Your task to perform on an android device: toggle location history Image 0: 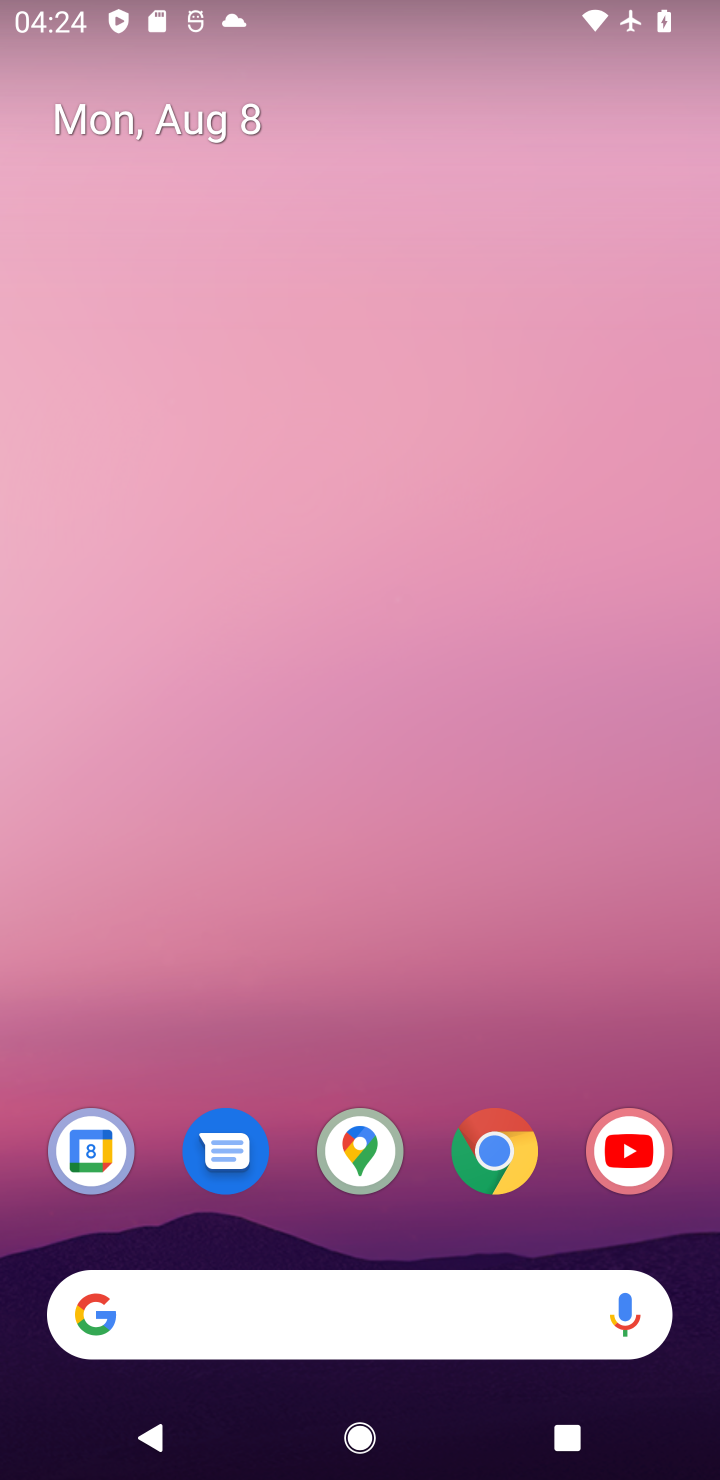
Step 0: drag from (297, 1044) to (291, 319)
Your task to perform on an android device: toggle location history Image 1: 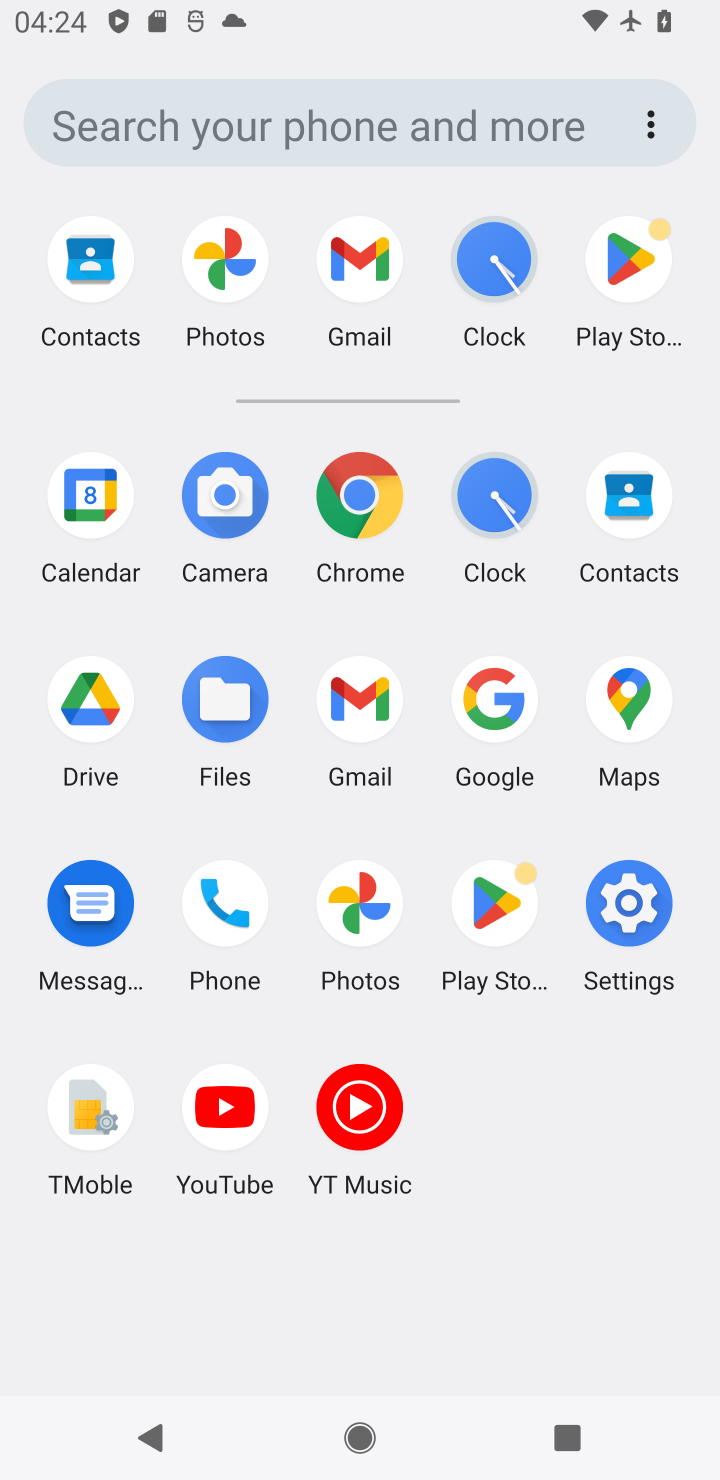
Step 1: click (629, 944)
Your task to perform on an android device: toggle location history Image 2: 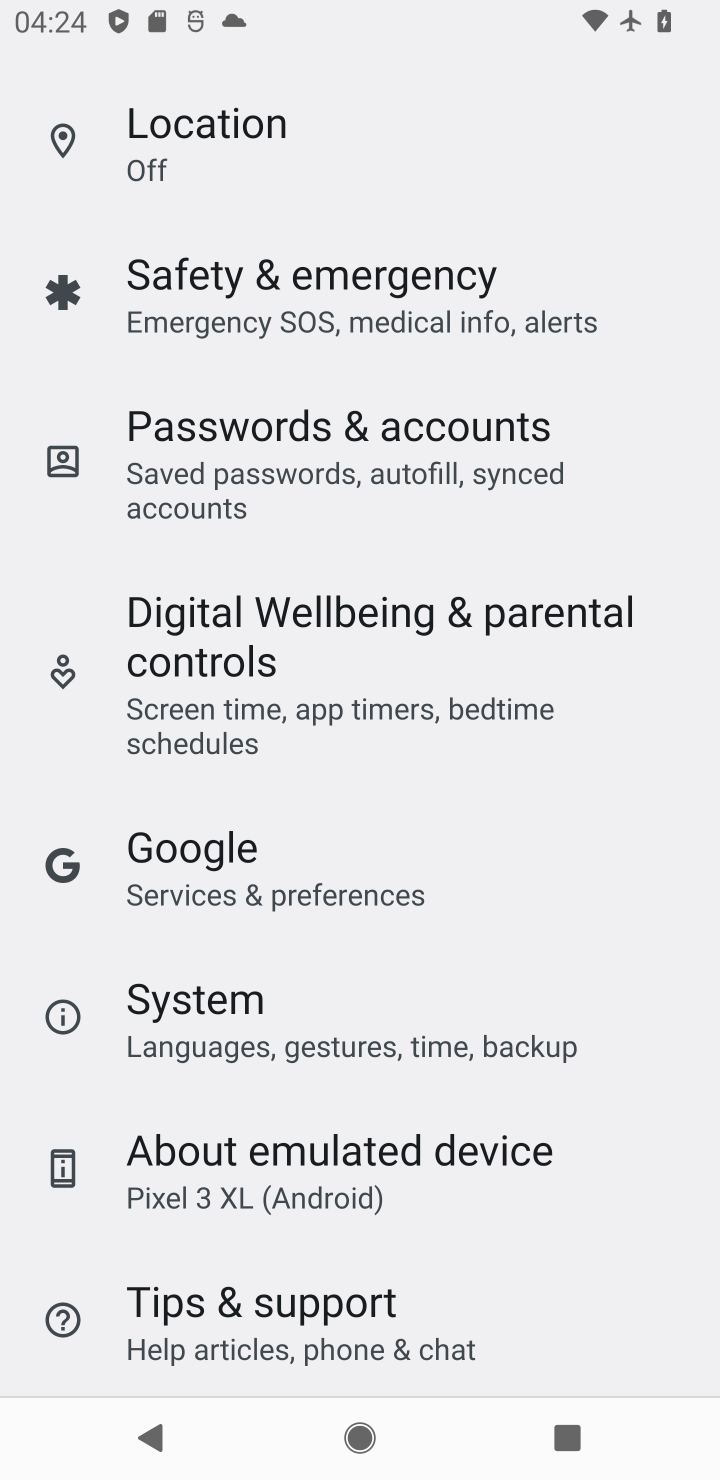
Step 2: drag from (262, 1111) to (135, 321)
Your task to perform on an android device: toggle location history Image 3: 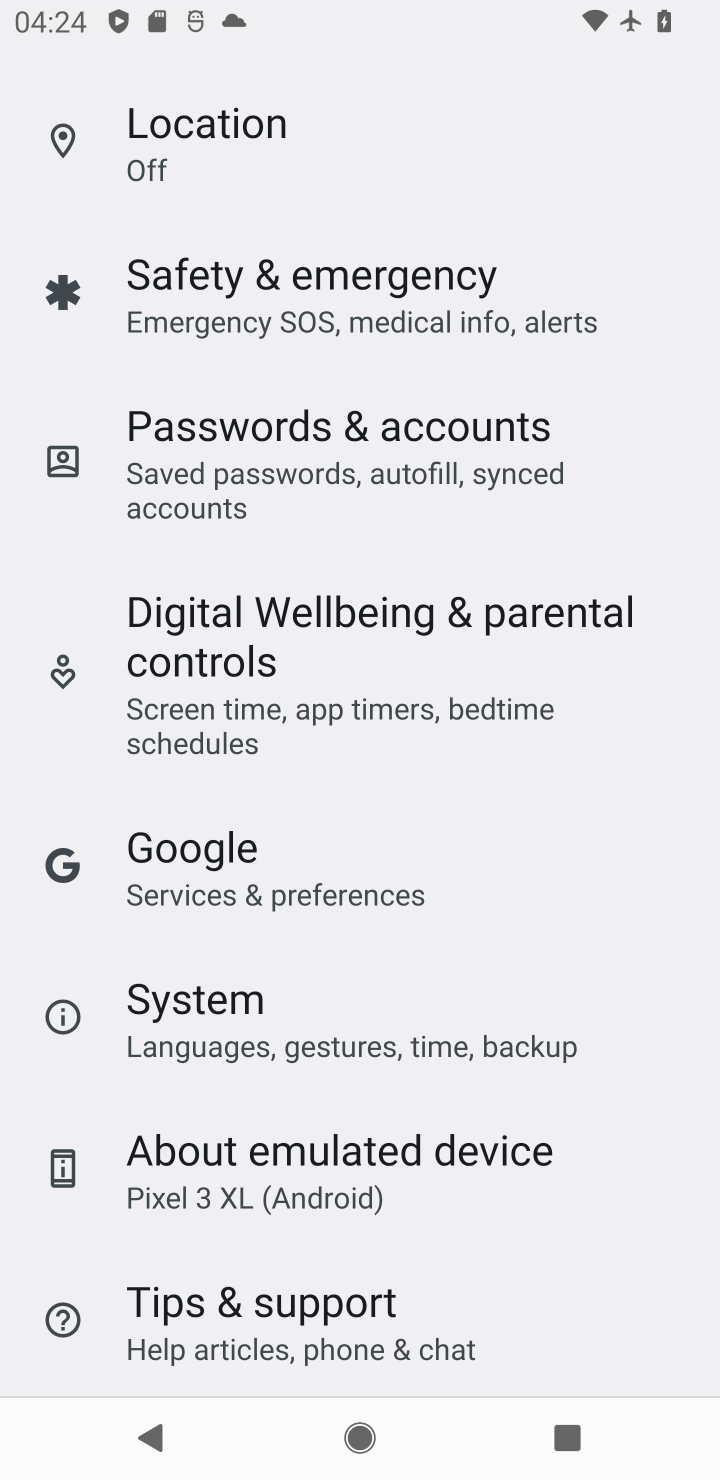
Step 3: click (215, 169)
Your task to perform on an android device: toggle location history Image 4: 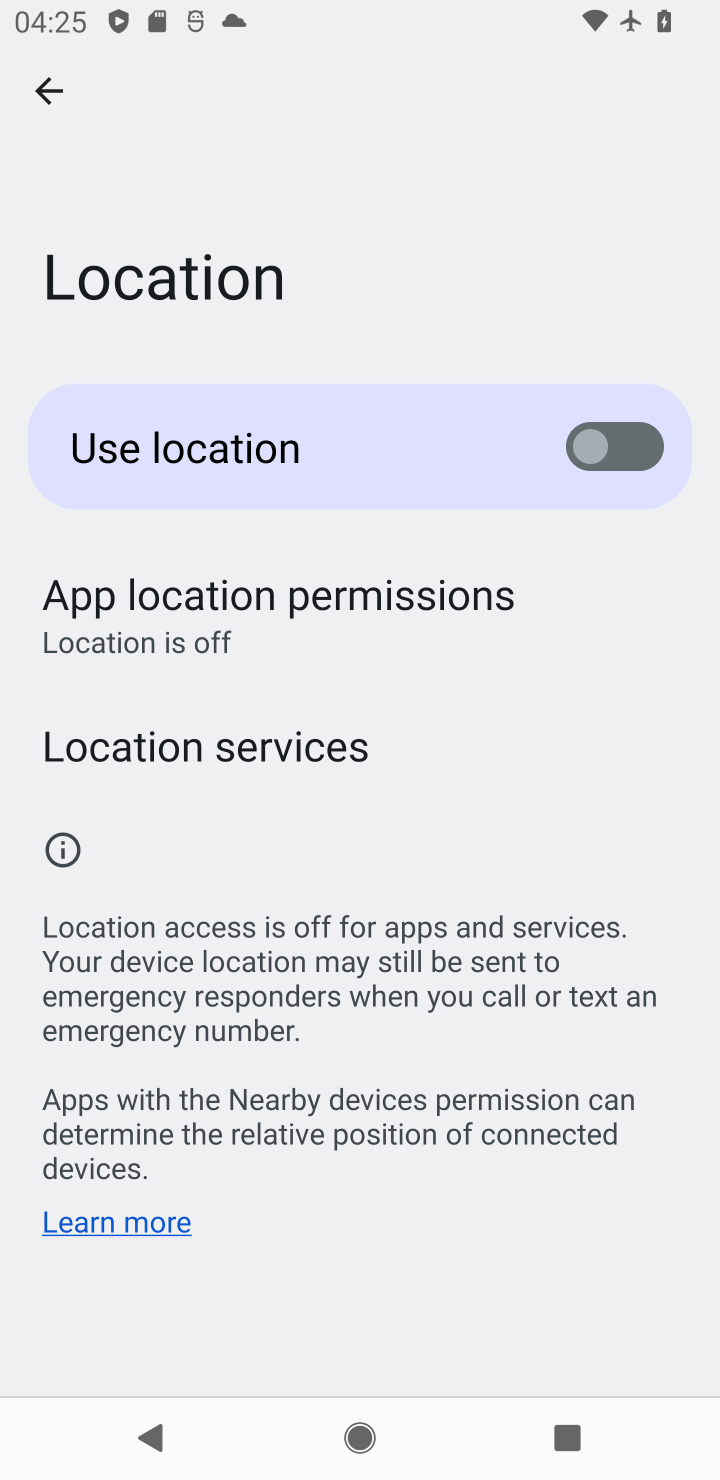
Step 4: click (319, 739)
Your task to perform on an android device: toggle location history Image 5: 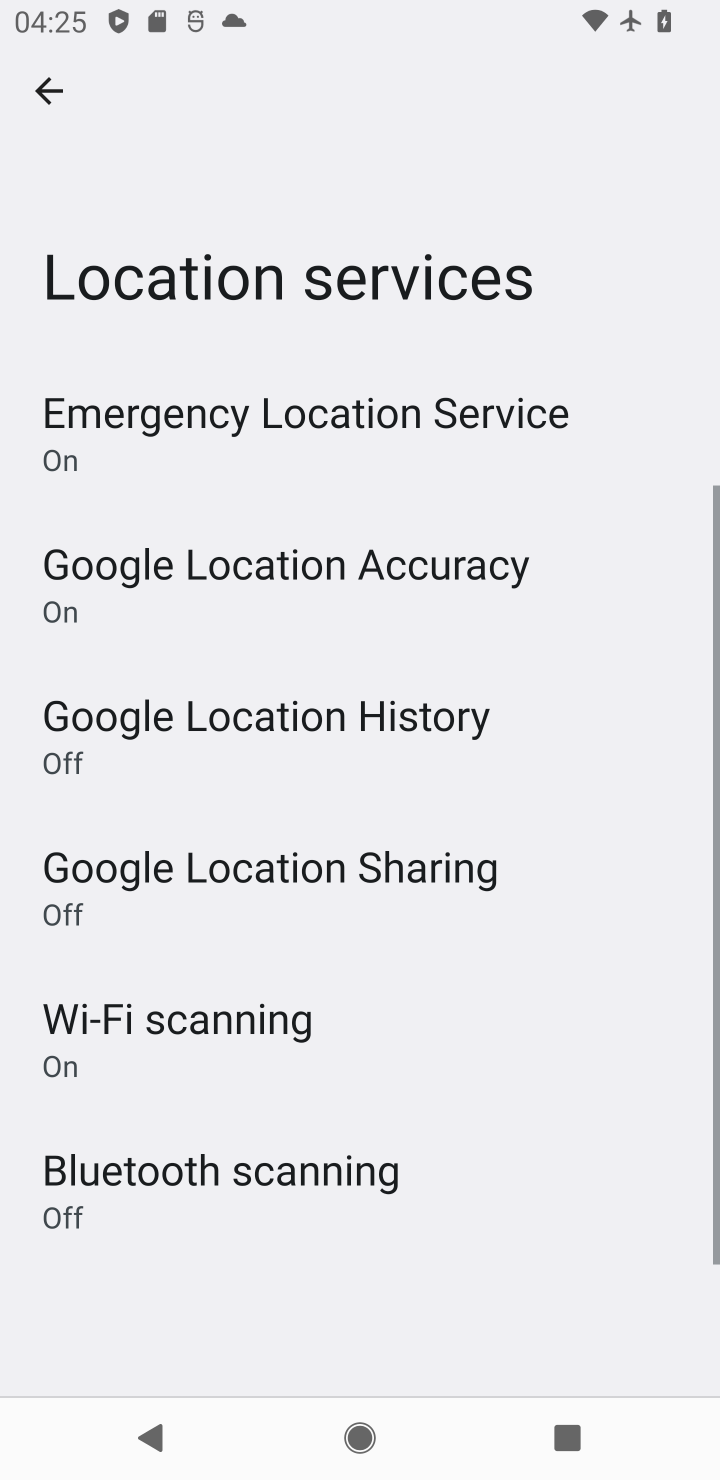
Step 5: click (241, 733)
Your task to perform on an android device: toggle location history Image 6: 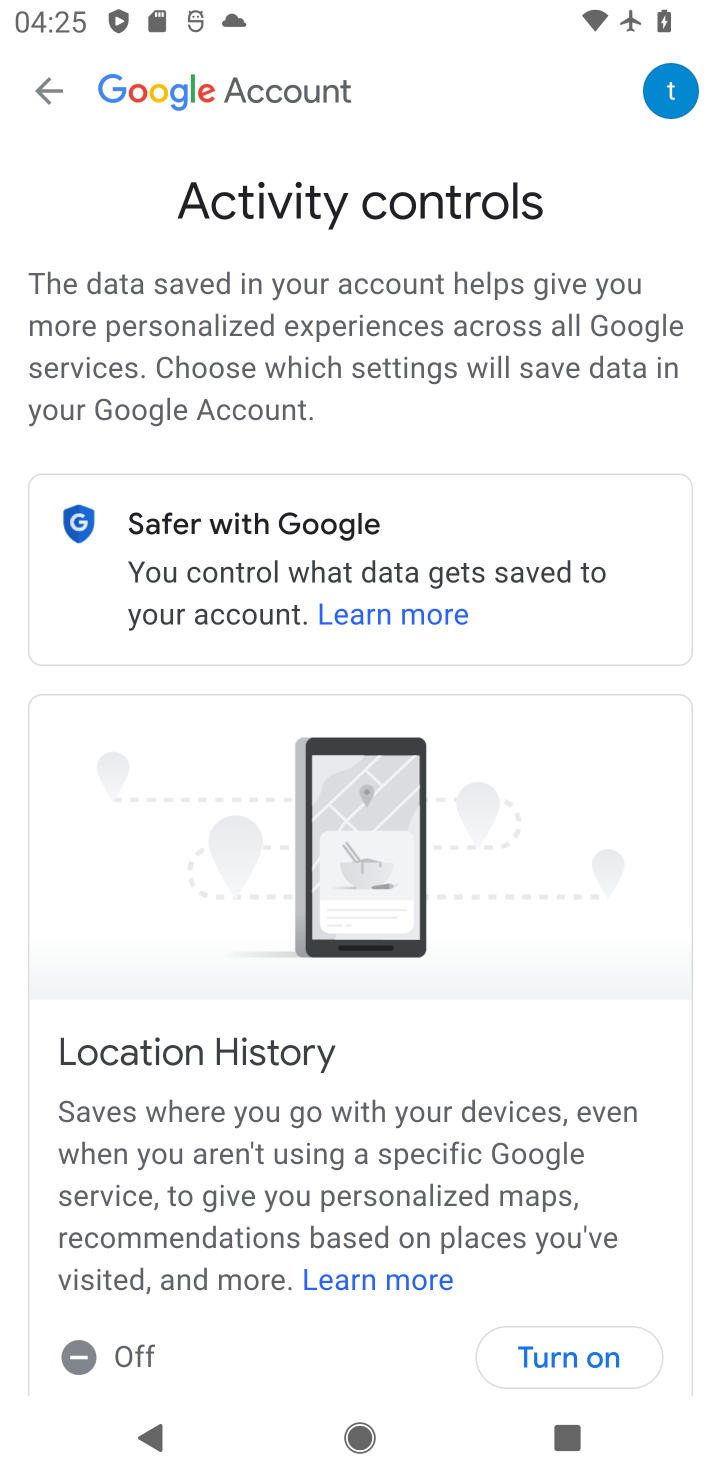
Step 6: drag from (419, 1108) to (349, 506)
Your task to perform on an android device: toggle location history Image 7: 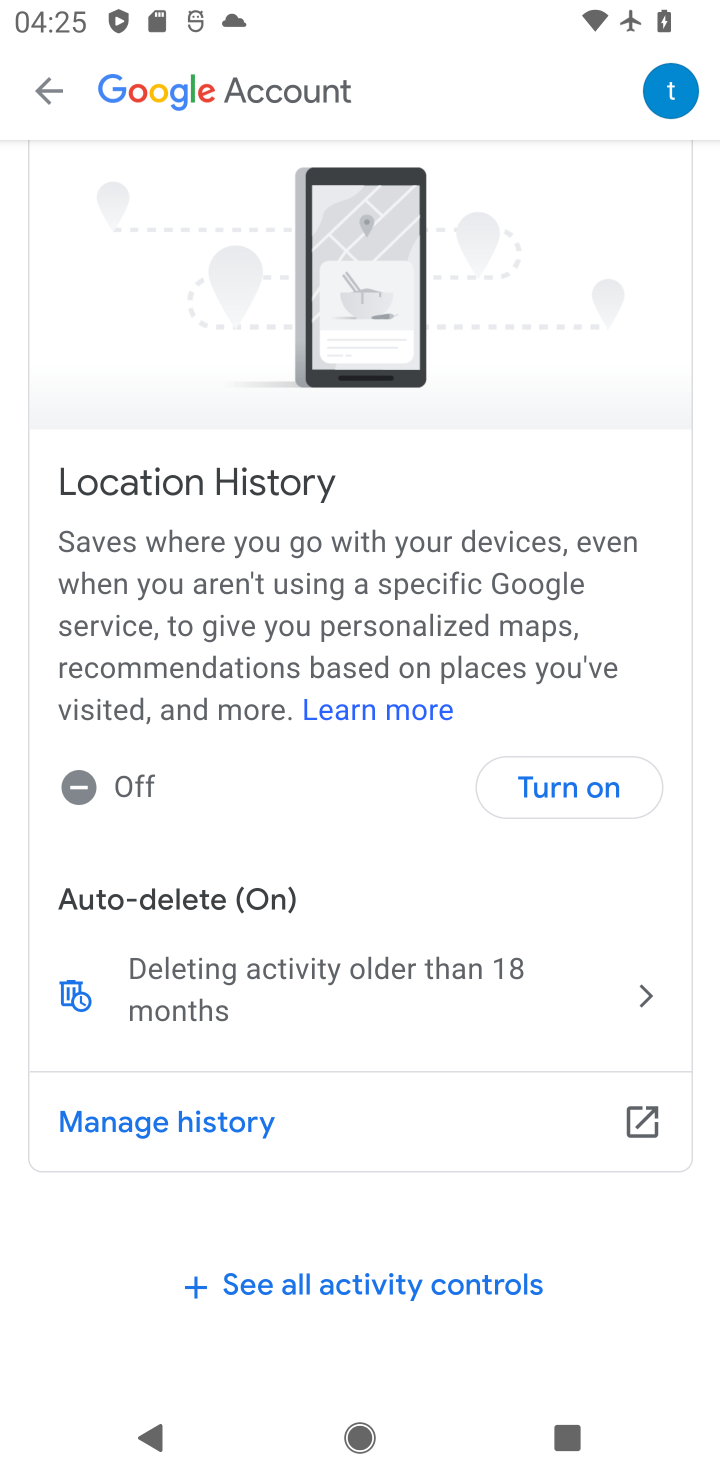
Step 7: click (544, 1046)
Your task to perform on an android device: toggle location history Image 8: 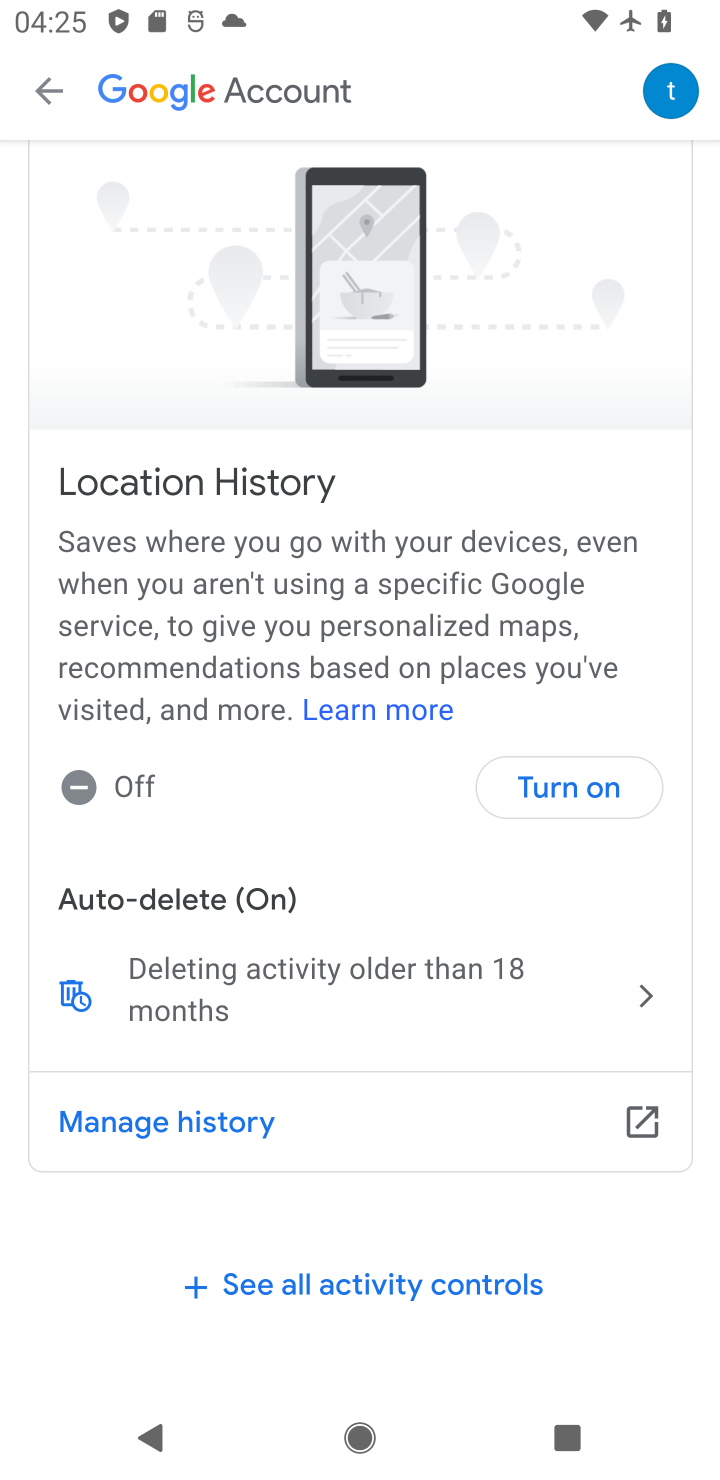
Step 8: click (532, 756)
Your task to perform on an android device: toggle location history Image 9: 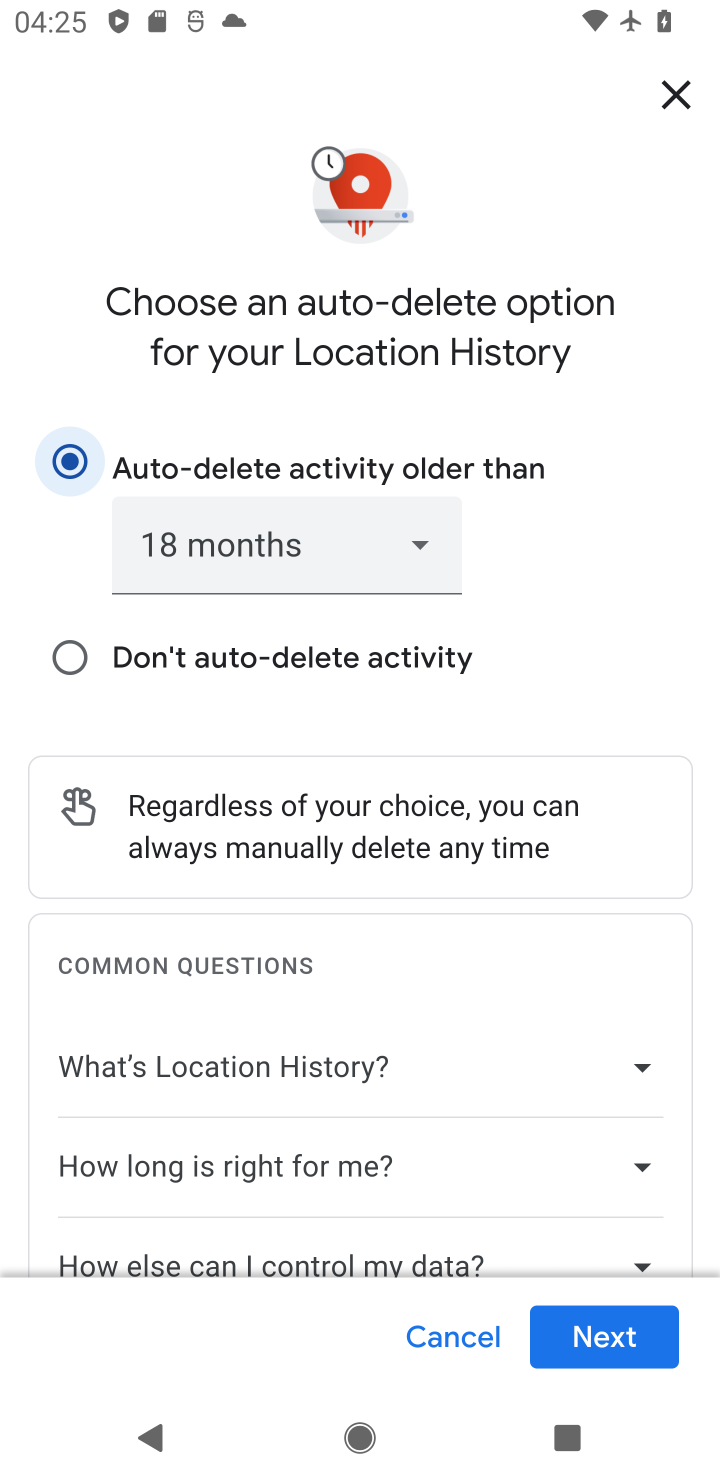
Step 9: click (467, 1314)
Your task to perform on an android device: toggle location history Image 10: 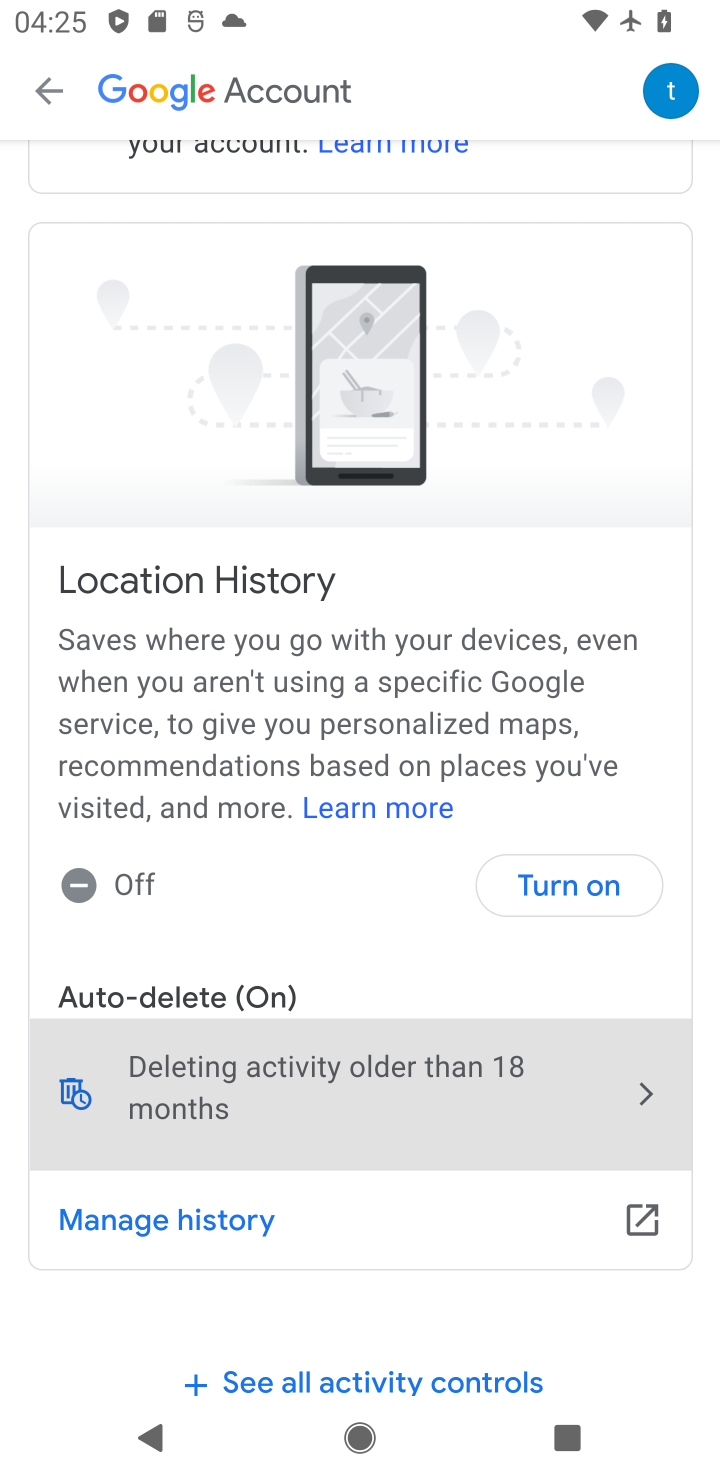
Step 10: click (535, 868)
Your task to perform on an android device: toggle location history Image 11: 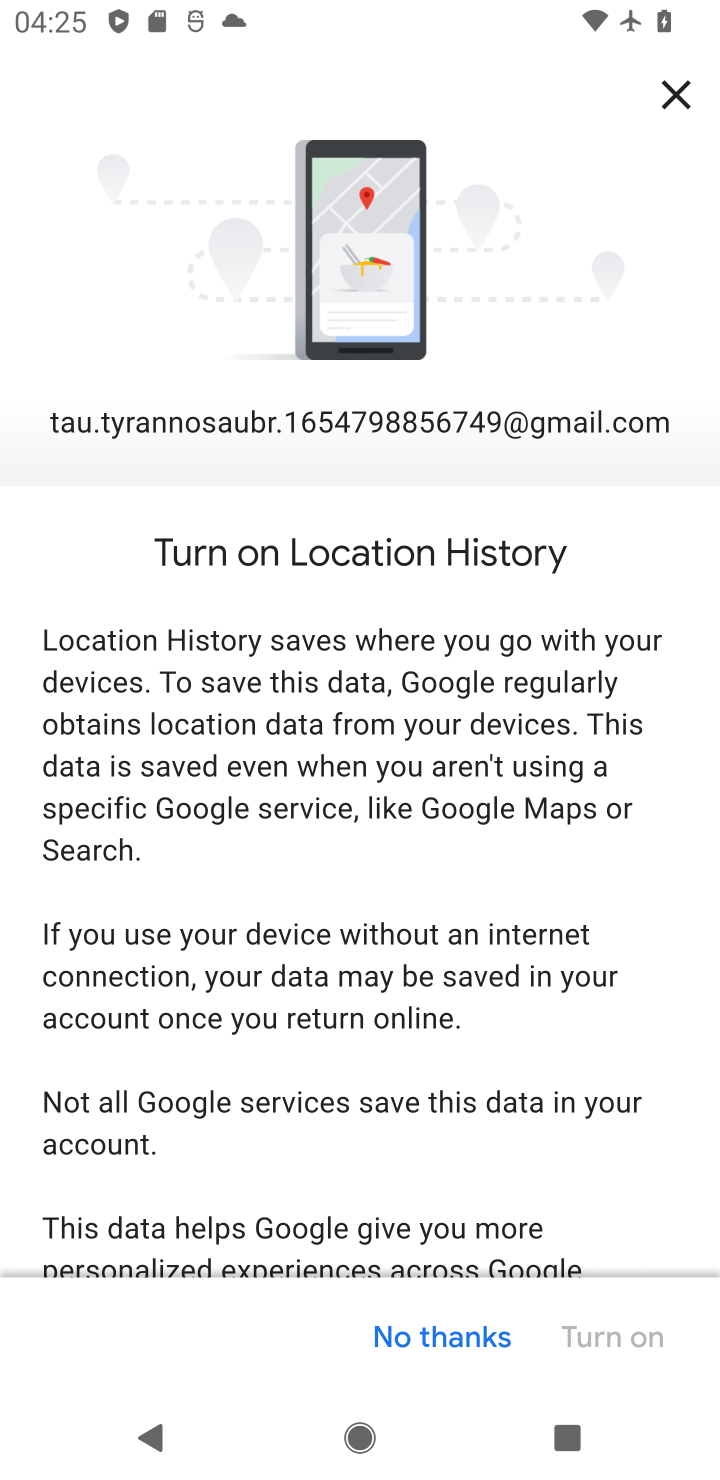
Step 11: drag from (572, 1223) to (470, 507)
Your task to perform on an android device: toggle location history Image 12: 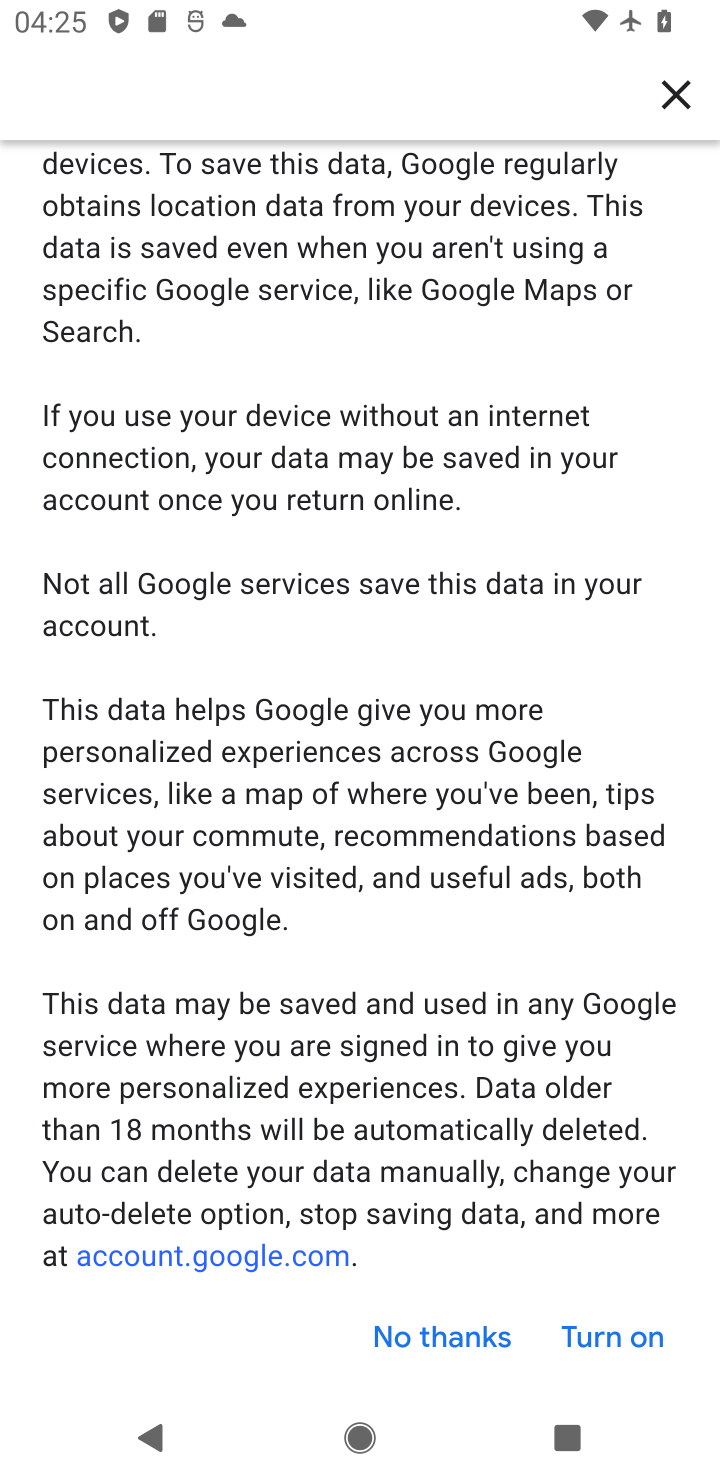
Step 12: click (602, 1329)
Your task to perform on an android device: toggle location history Image 13: 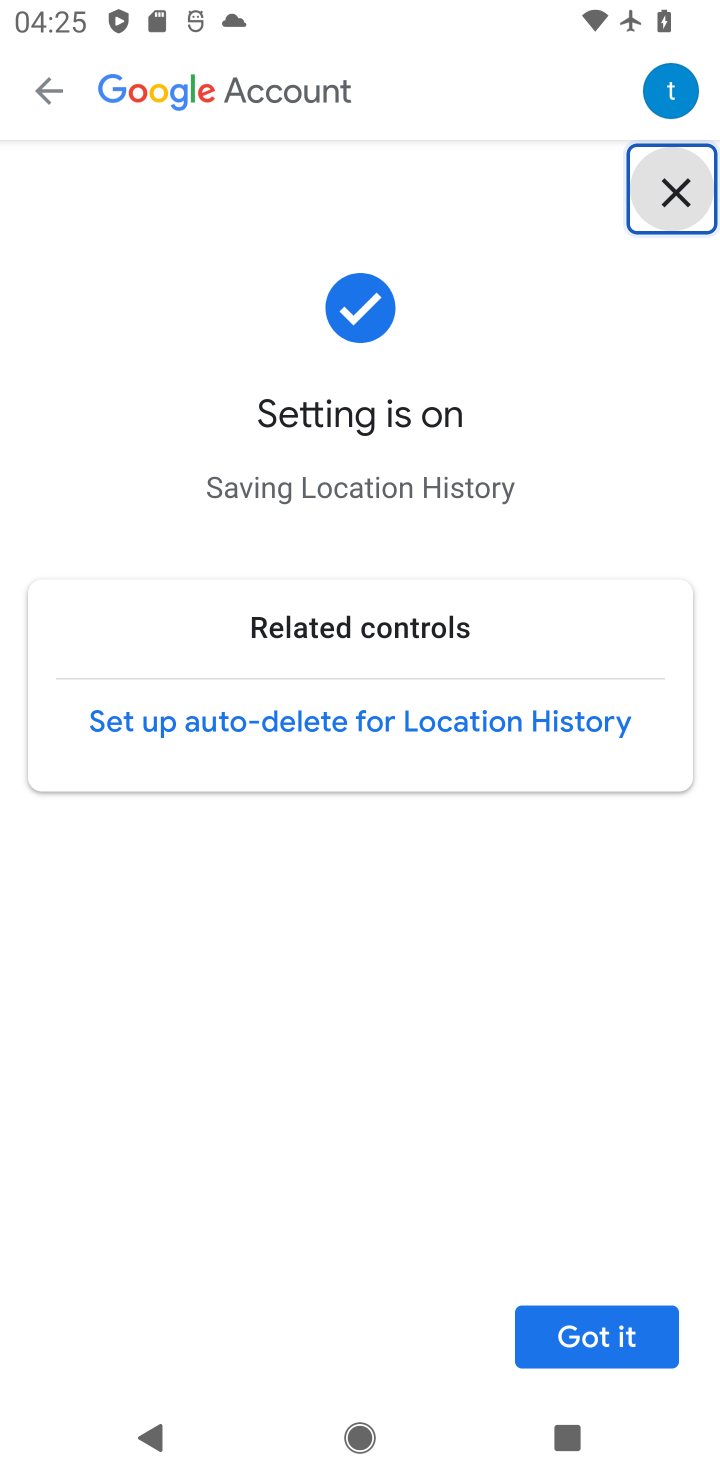
Step 13: task complete